Your task to perform on an android device: open app "Paramount+ | Peak Streaming" (install if not already installed) Image 0: 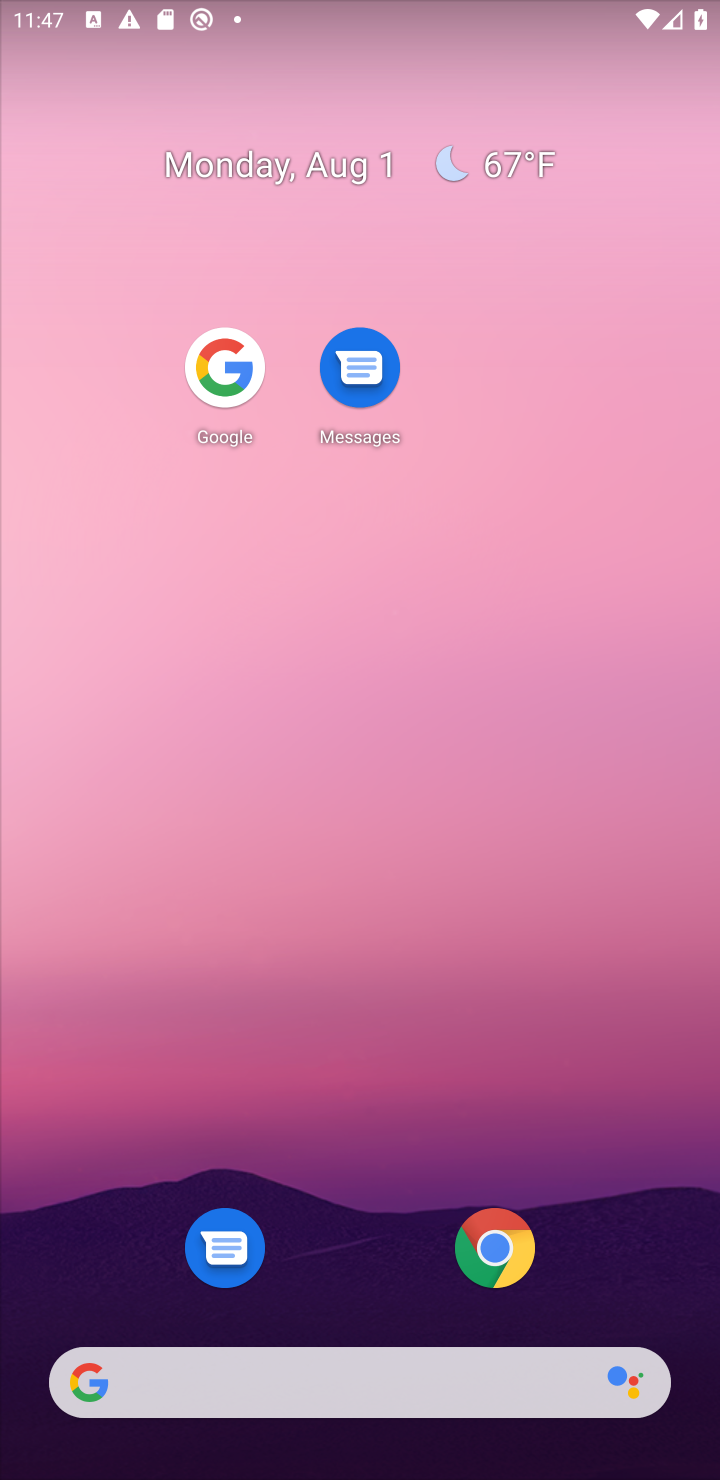
Step 0: drag from (351, 1172) to (498, 464)
Your task to perform on an android device: open app "Paramount+ | Peak Streaming" (install if not already installed) Image 1: 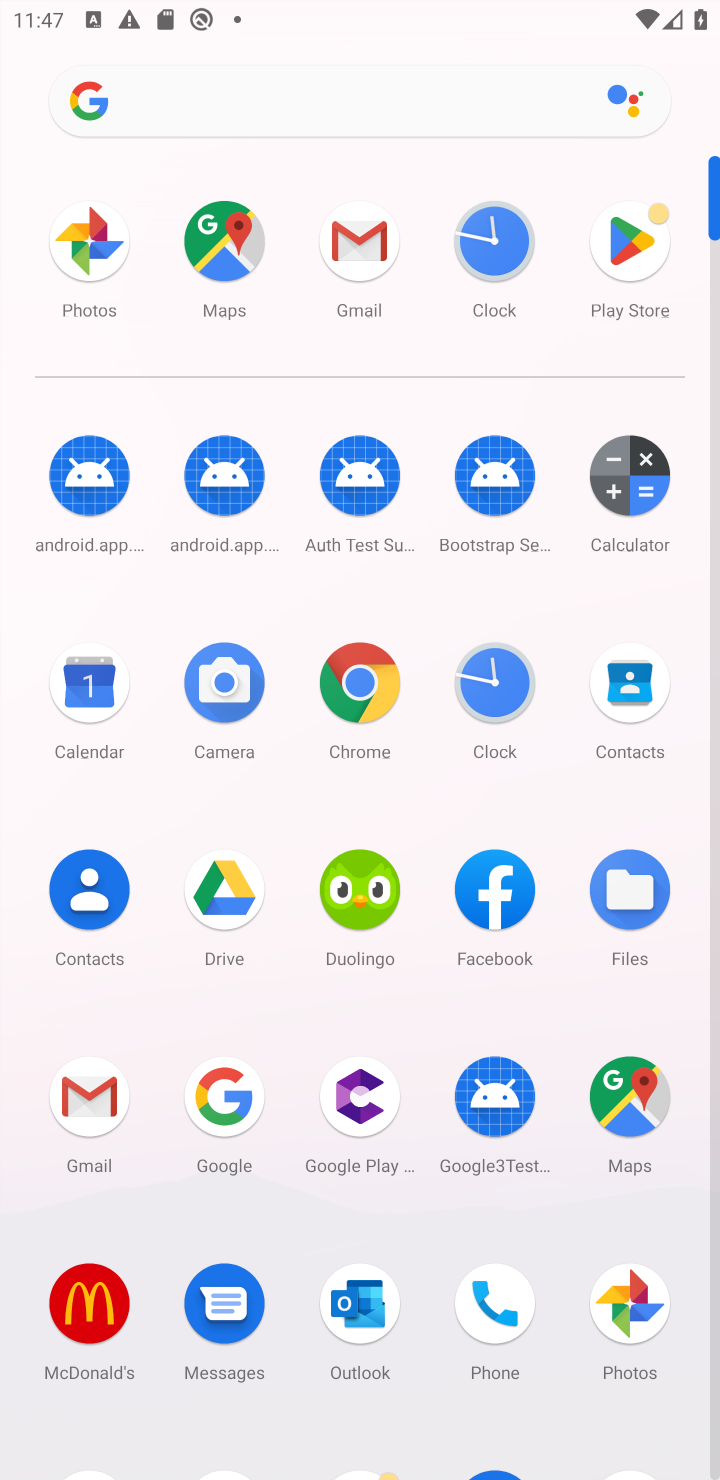
Step 1: drag from (424, 1215) to (428, 633)
Your task to perform on an android device: open app "Paramount+ | Peak Streaming" (install if not already installed) Image 2: 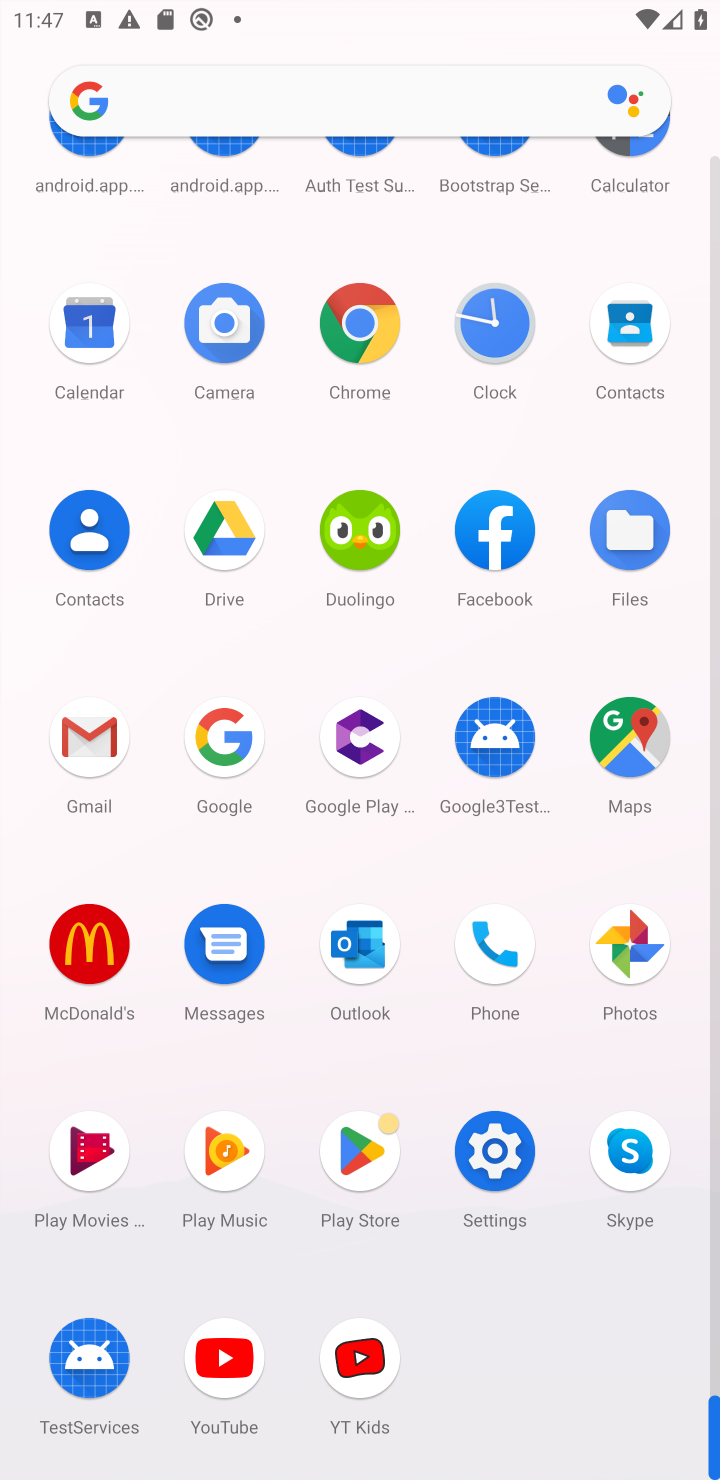
Step 2: click (364, 1143)
Your task to perform on an android device: open app "Paramount+ | Peak Streaming" (install if not already installed) Image 3: 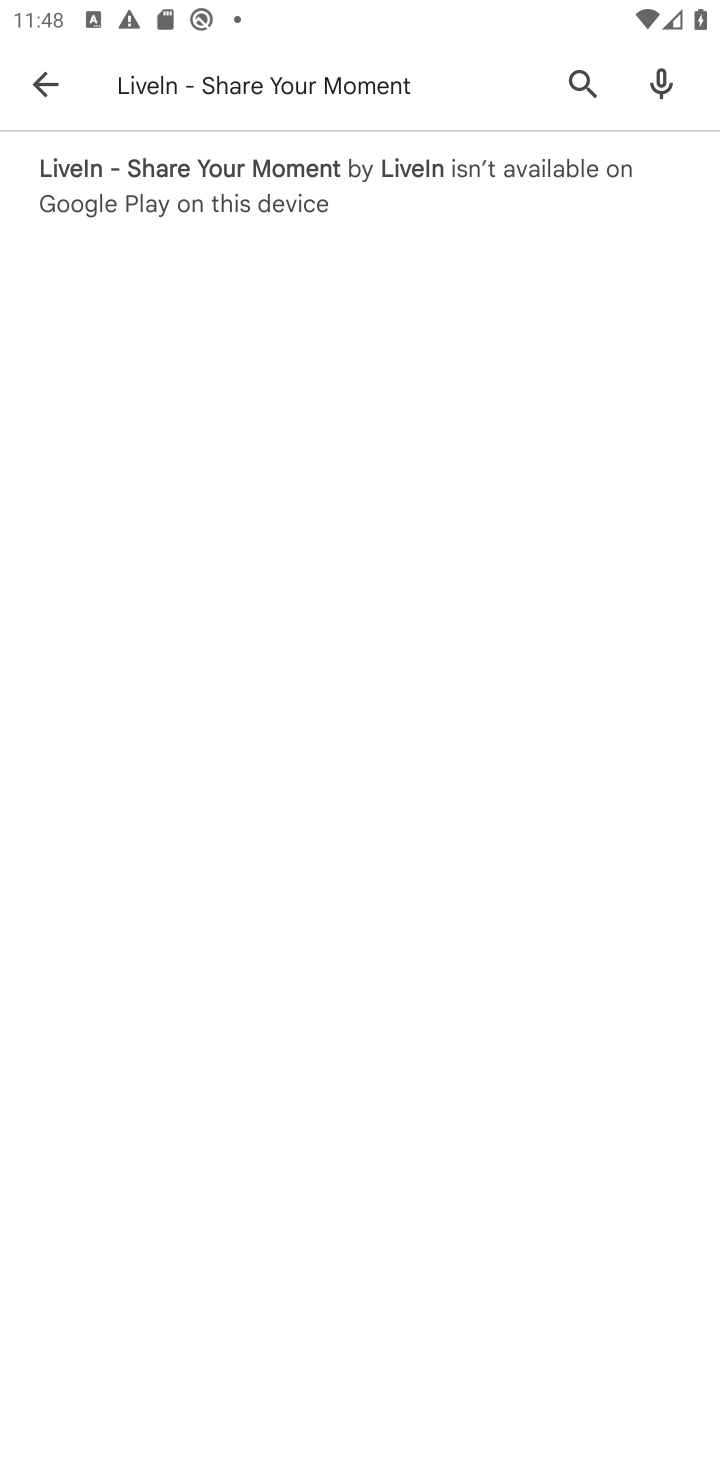
Step 3: click (376, 75)
Your task to perform on an android device: open app "Paramount+ | Peak Streaming" (install if not already installed) Image 4: 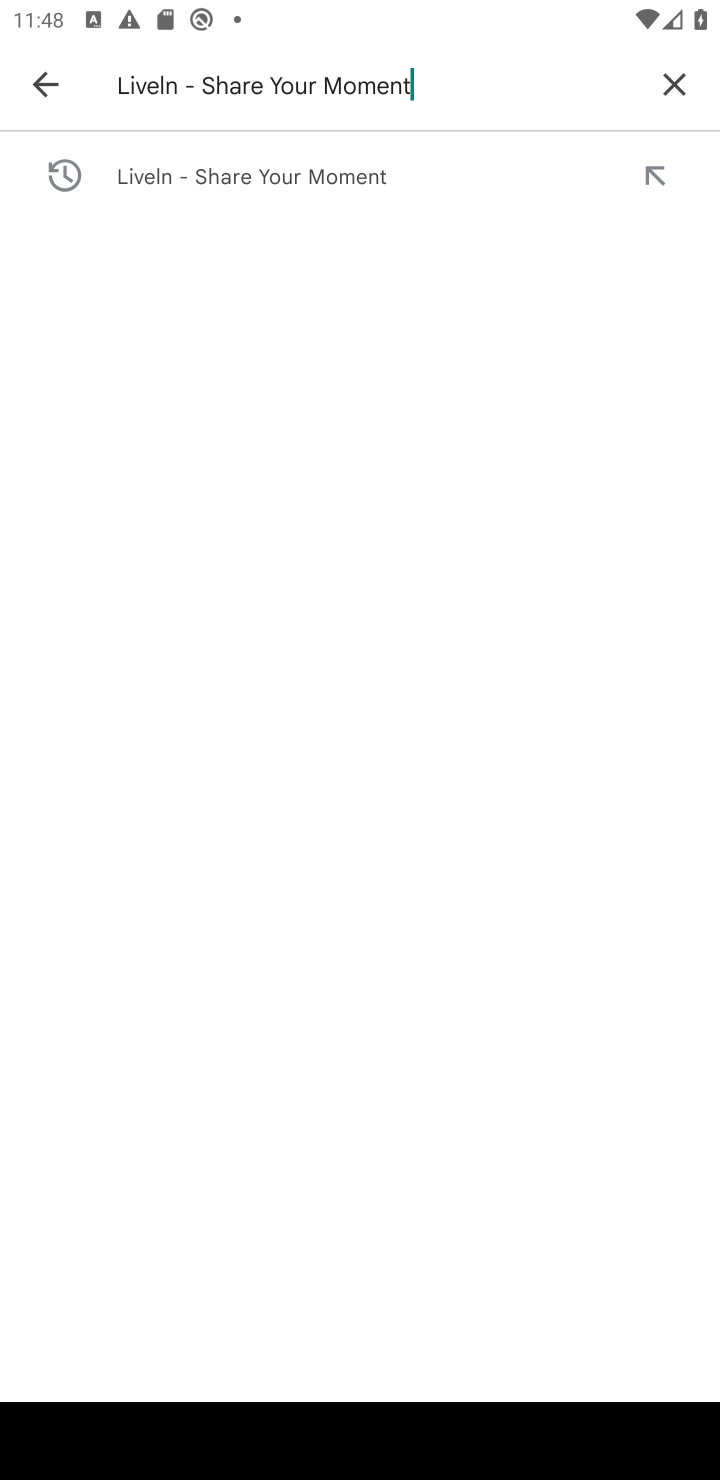
Step 4: click (673, 69)
Your task to perform on an android device: open app "Paramount+ | Peak Streaming" (install if not already installed) Image 5: 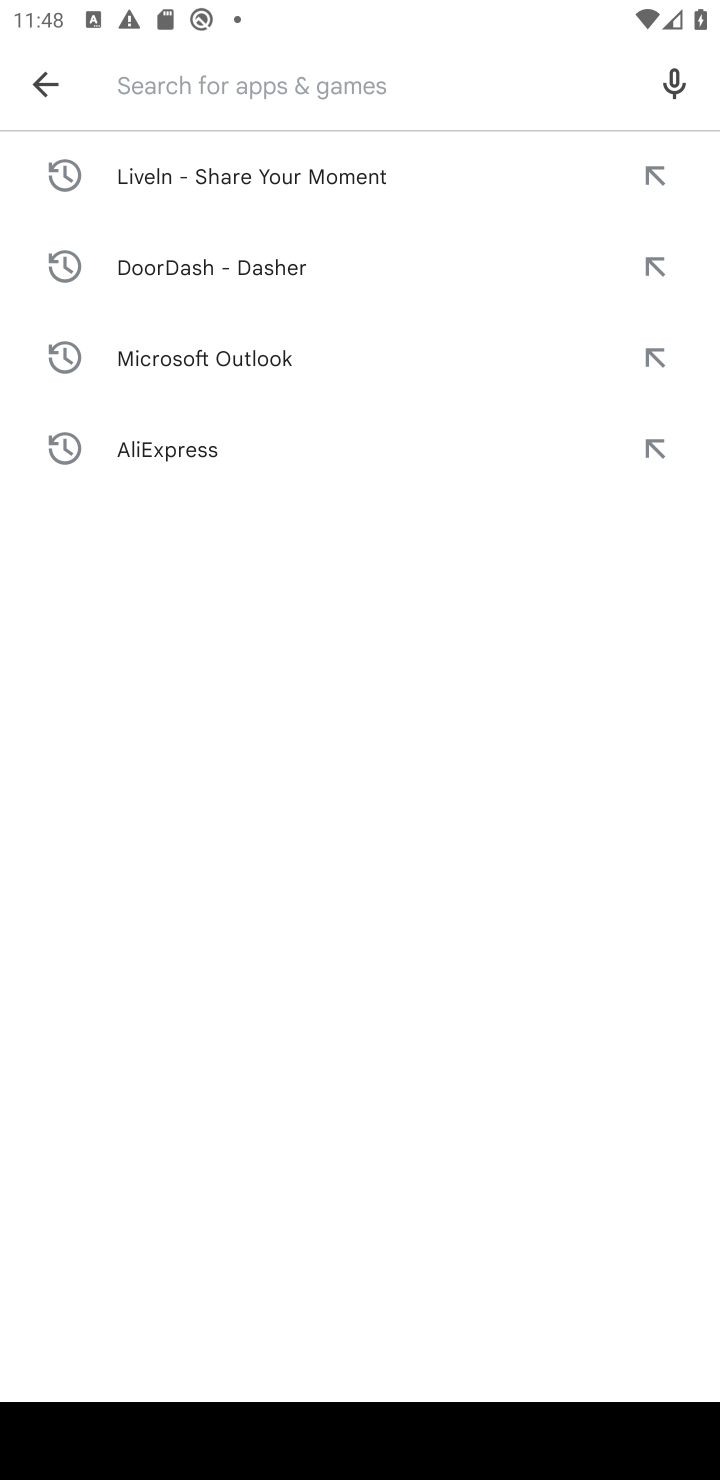
Step 5: type "Paramount+ | Peak Streaming"
Your task to perform on an android device: open app "Paramount+ | Peak Streaming" (install if not already installed) Image 6: 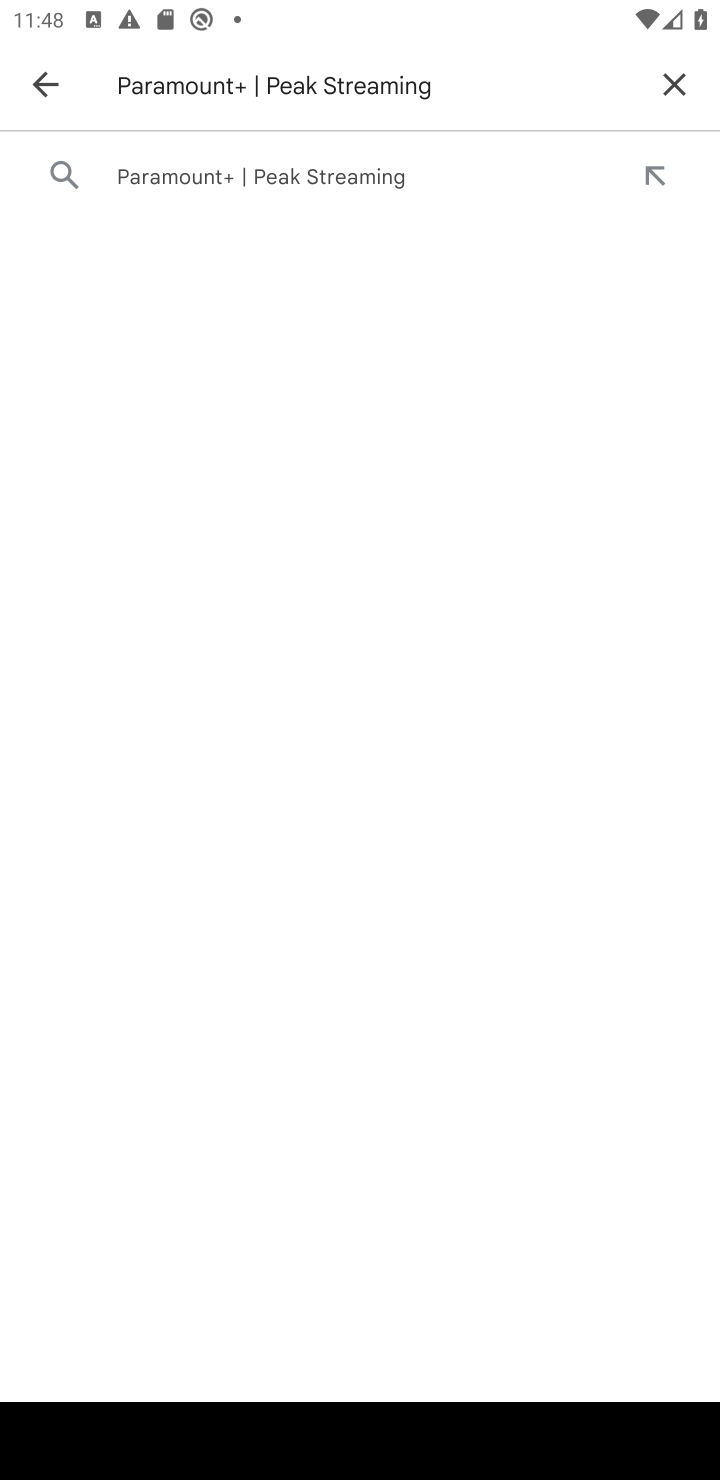
Step 6: press enter
Your task to perform on an android device: open app "Paramount+ | Peak Streaming" (install if not already installed) Image 7: 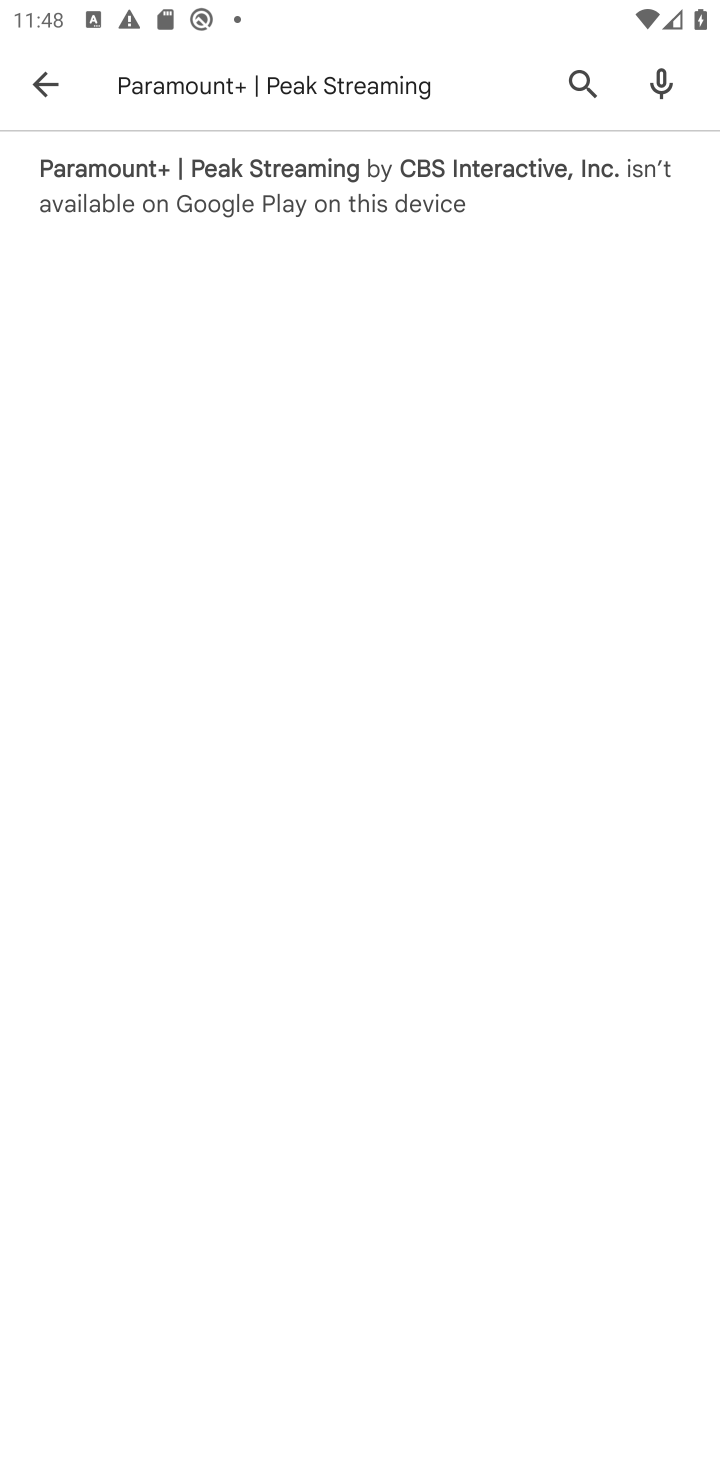
Step 7: task complete